Your task to perform on an android device: install app "Gmail" Image 0: 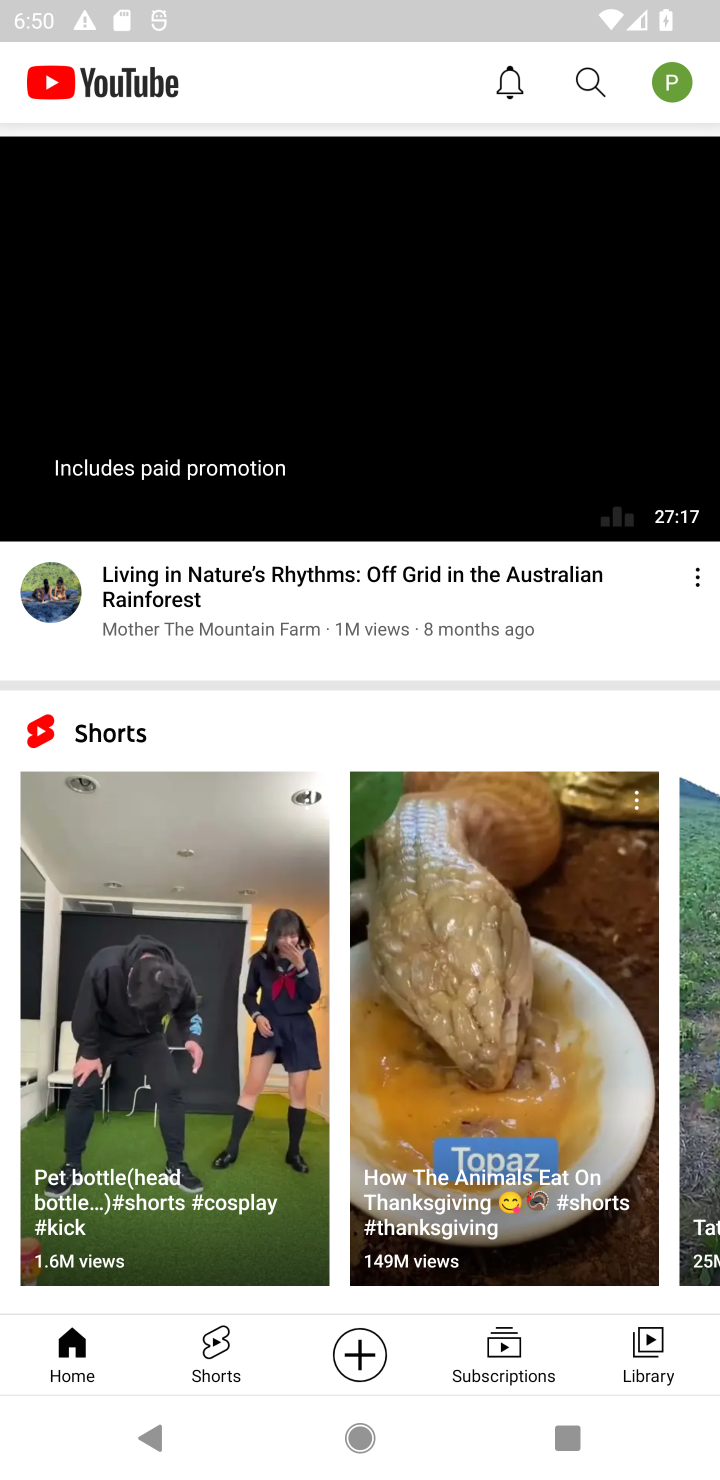
Step 0: press home button
Your task to perform on an android device: install app "Gmail" Image 1: 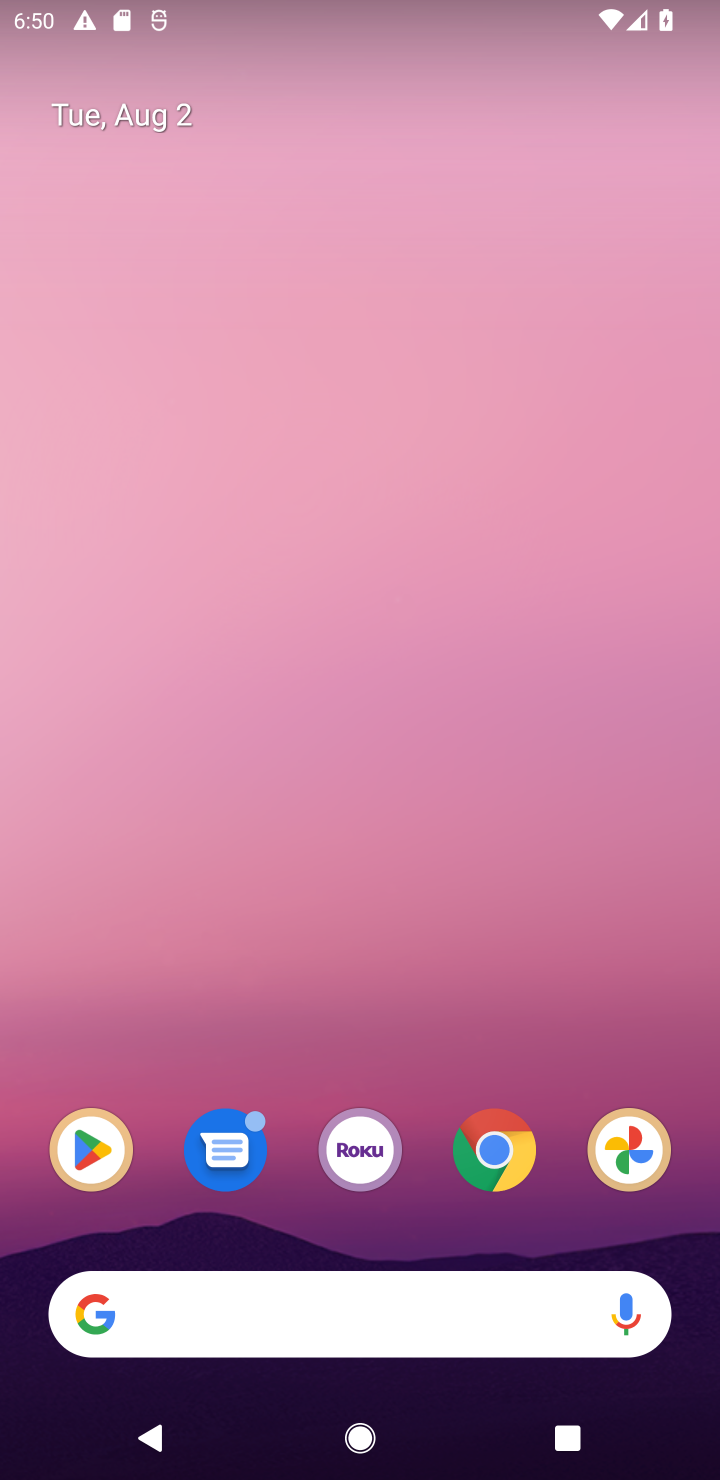
Step 1: drag from (374, 1224) to (199, 33)
Your task to perform on an android device: install app "Gmail" Image 2: 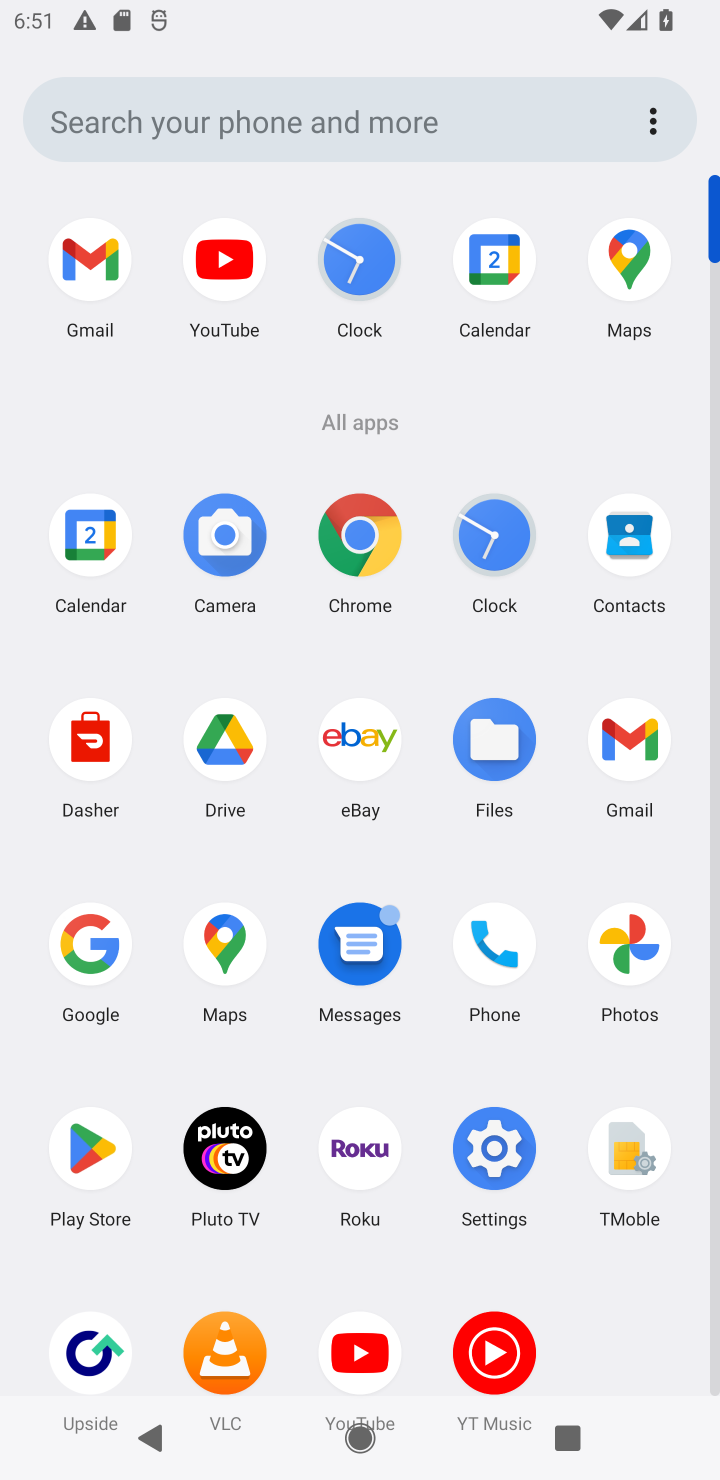
Step 2: click (71, 1139)
Your task to perform on an android device: install app "Gmail" Image 3: 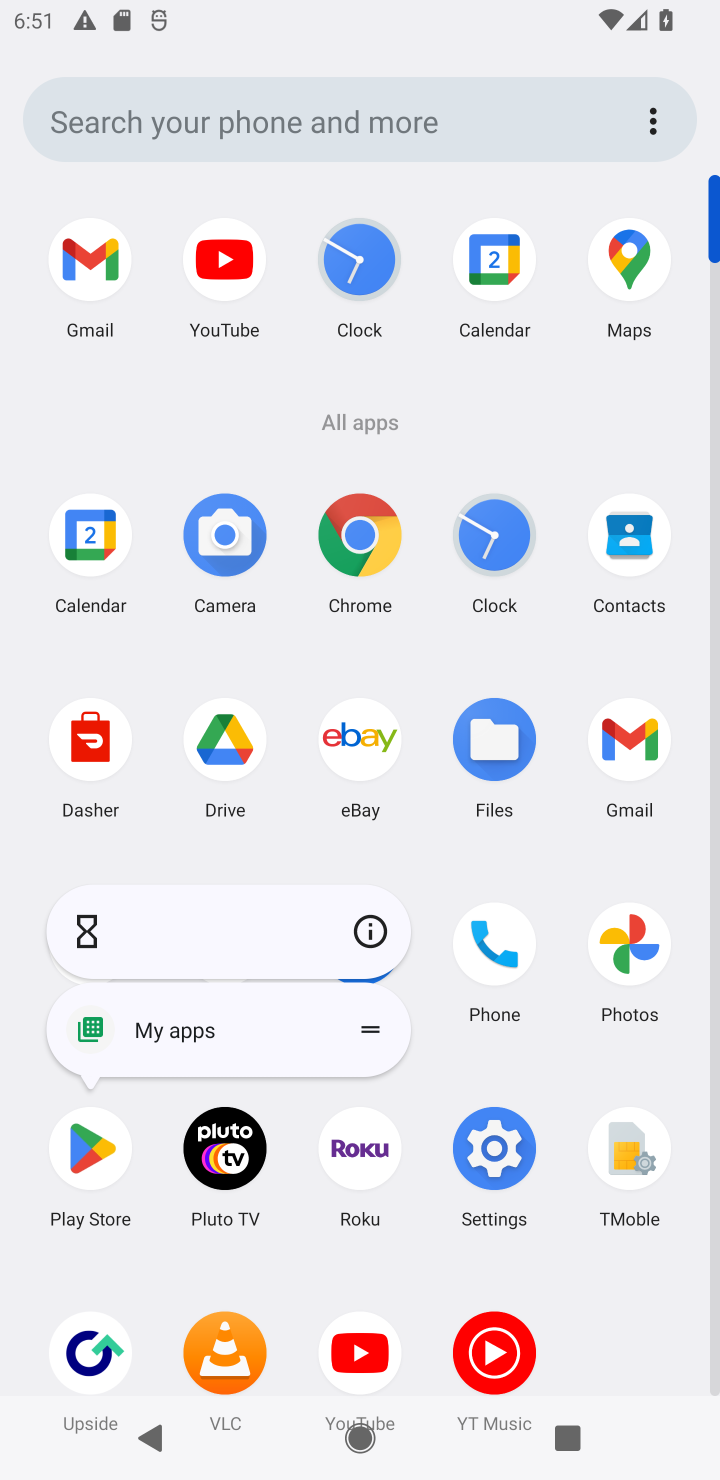
Step 3: click (578, 767)
Your task to perform on an android device: install app "Gmail" Image 4: 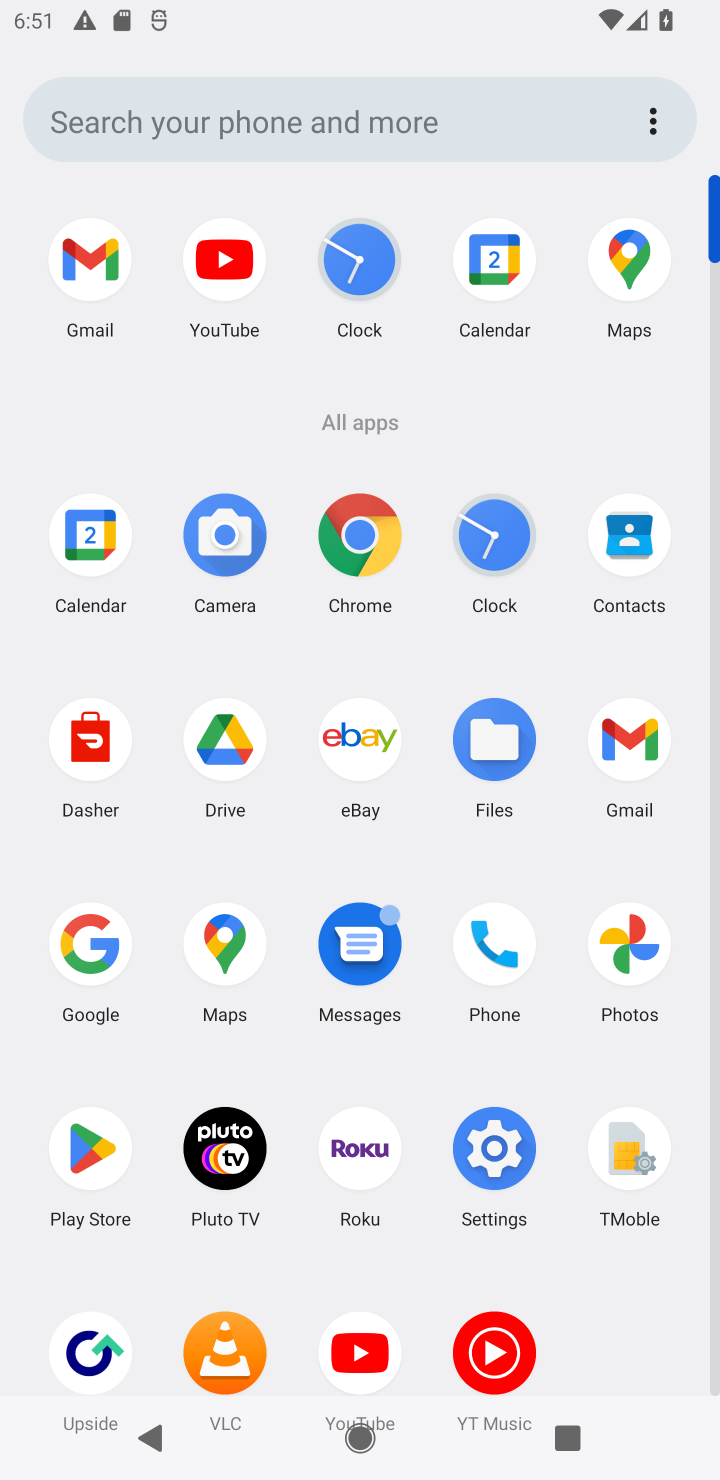
Step 4: click (633, 752)
Your task to perform on an android device: install app "Gmail" Image 5: 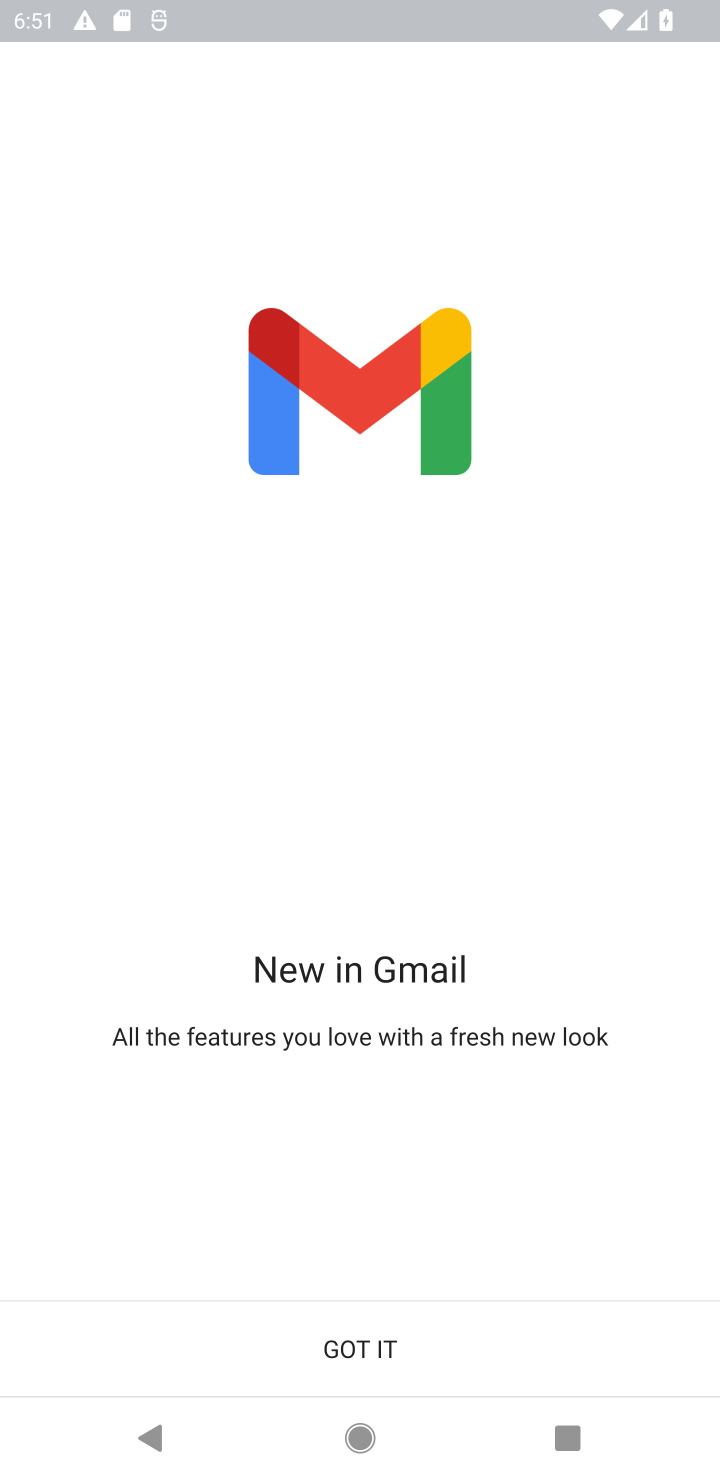
Step 5: click (337, 1349)
Your task to perform on an android device: install app "Gmail" Image 6: 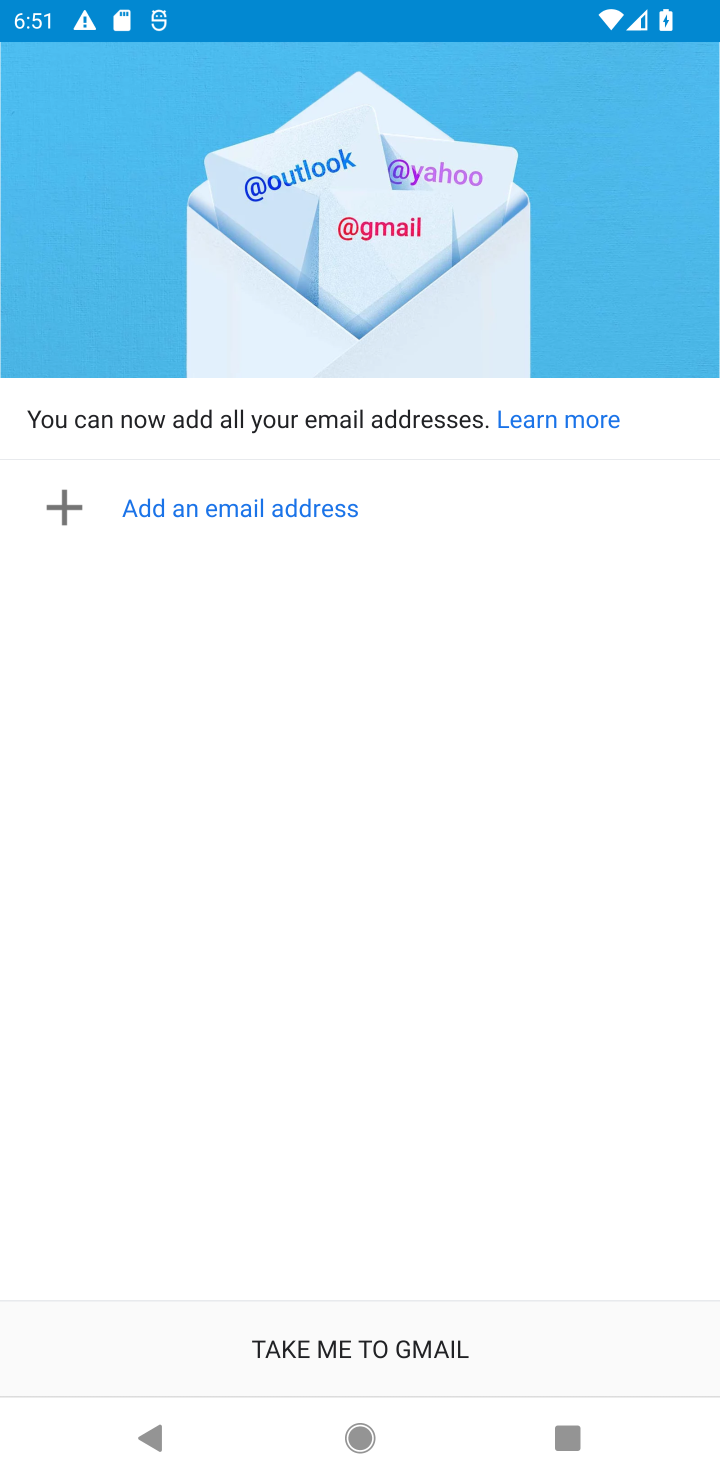
Step 6: click (337, 1347)
Your task to perform on an android device: install app "Gmail" Image 7: 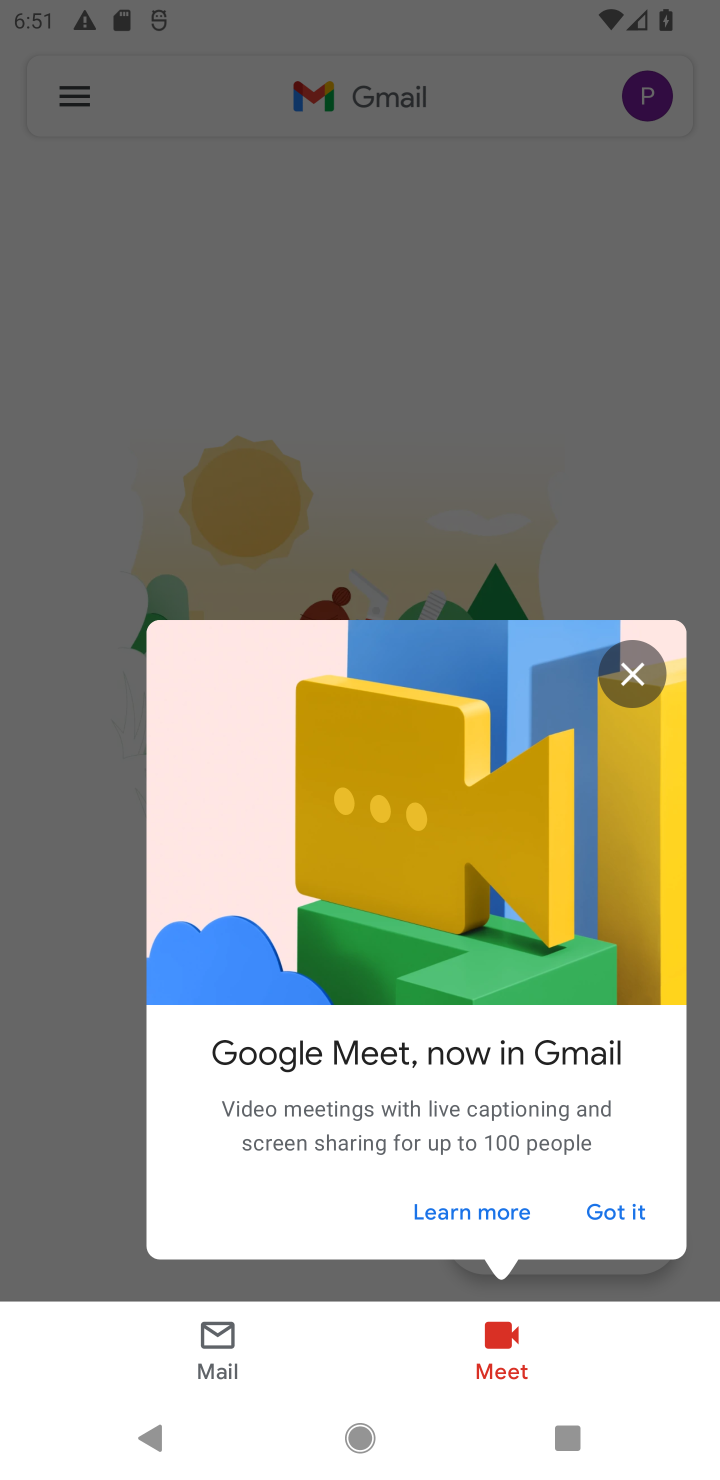
Step 7: click (609, 1214)
Your task to perform on an android device: install app "Gmail" Image 8: 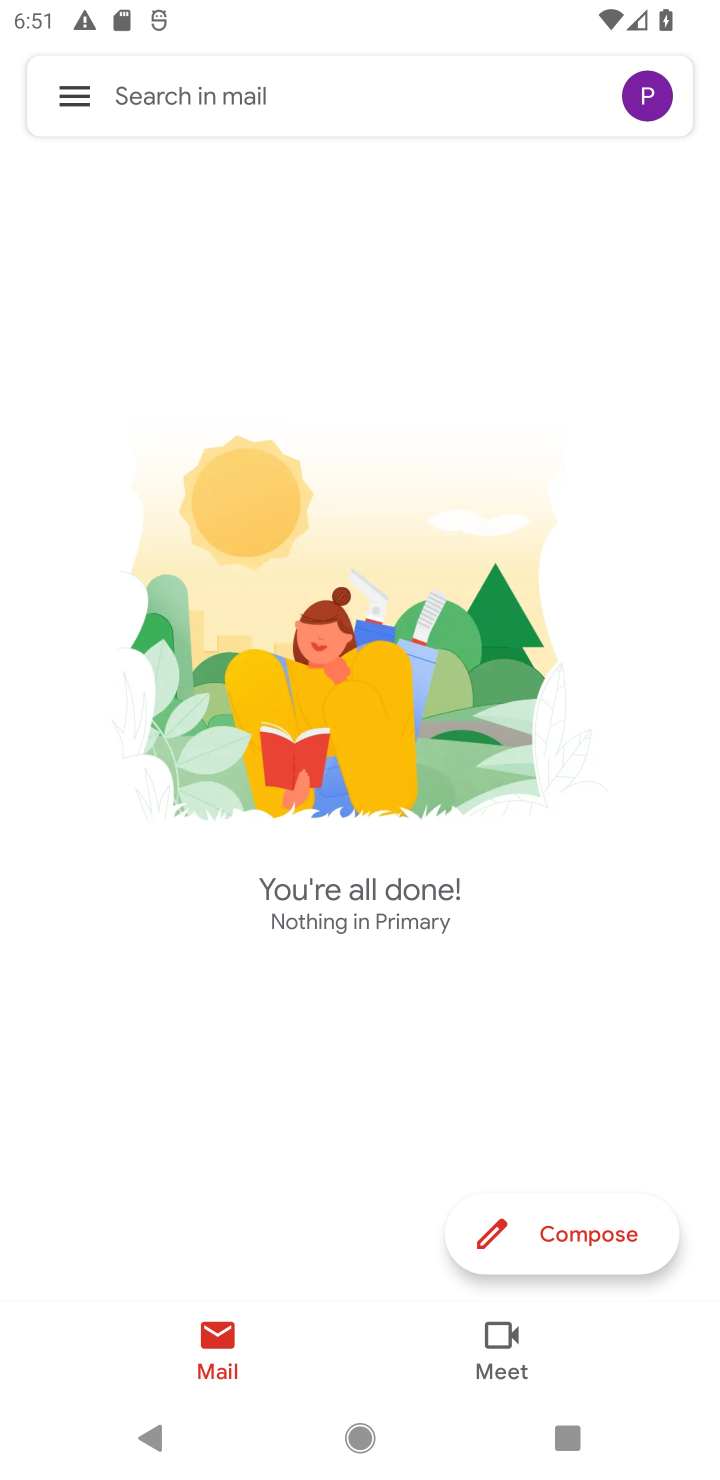
Step 8: task complete